Your task to perform on an android device: Do I have any events this weekend? Image 0: 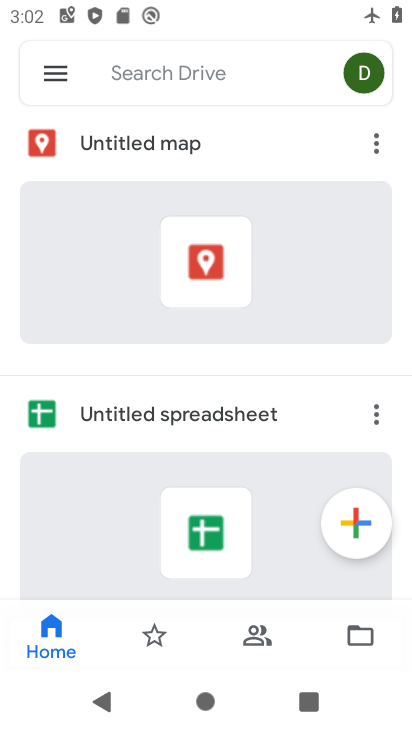
Step 0: press home button
Your task to perform on an android device: Do I have any events this weekend? Image 1: 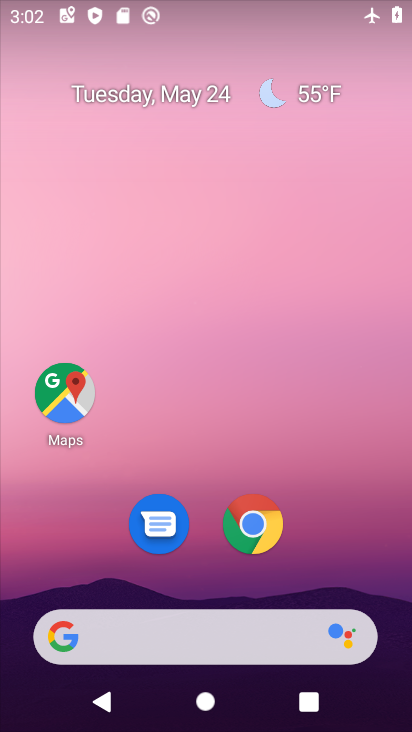
Step 1: drag from (266, 449) to (294, 36)
Your task to perform on an android device: Do I have any events this weekend? Image 2: 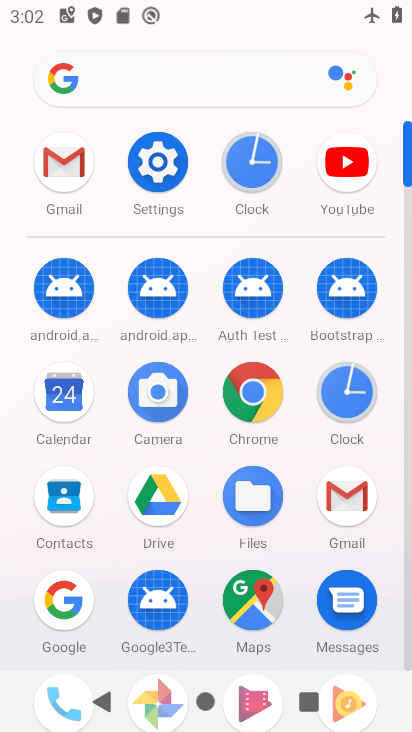
Step 2: click (55, 390)
Your task to perform on an android device: Do I have any events this weekend? Image 3: 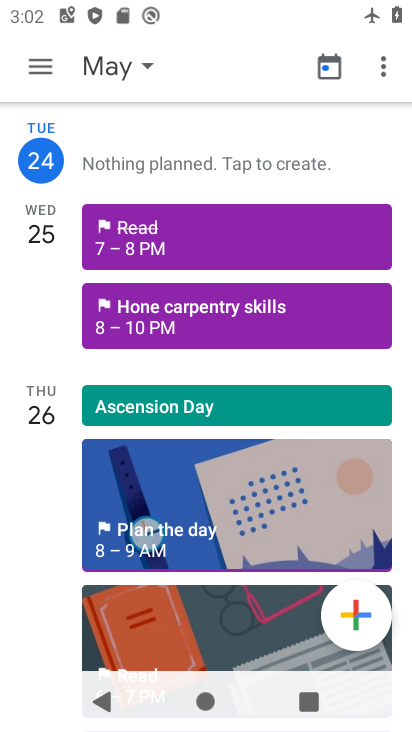
Step 3: task complete